Your task to perform on an android device: Go to Wikipedia Image 0: 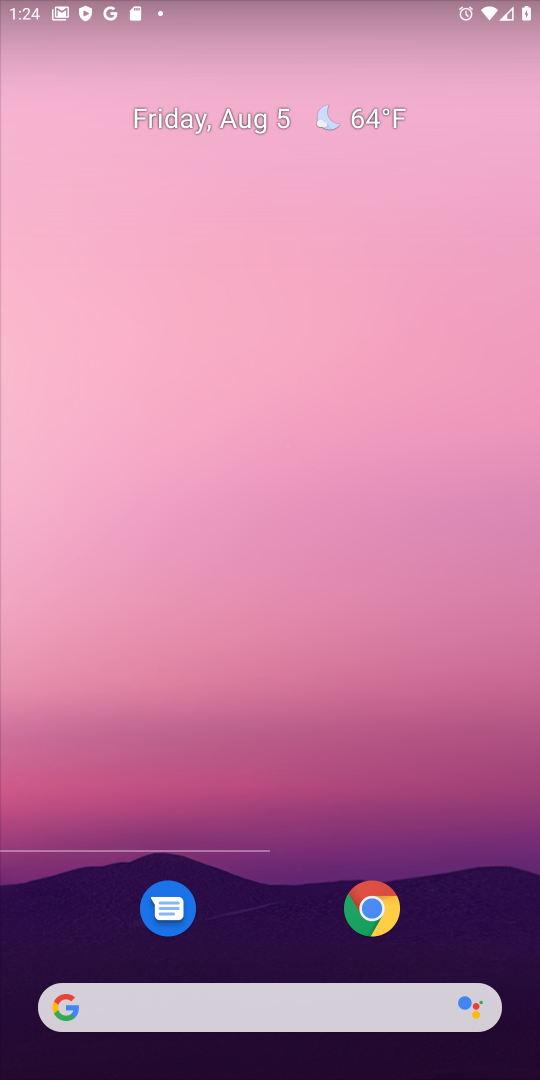
Step 0: press home button
Your task to perform on an android device: Go to Wikipedia Image 1: 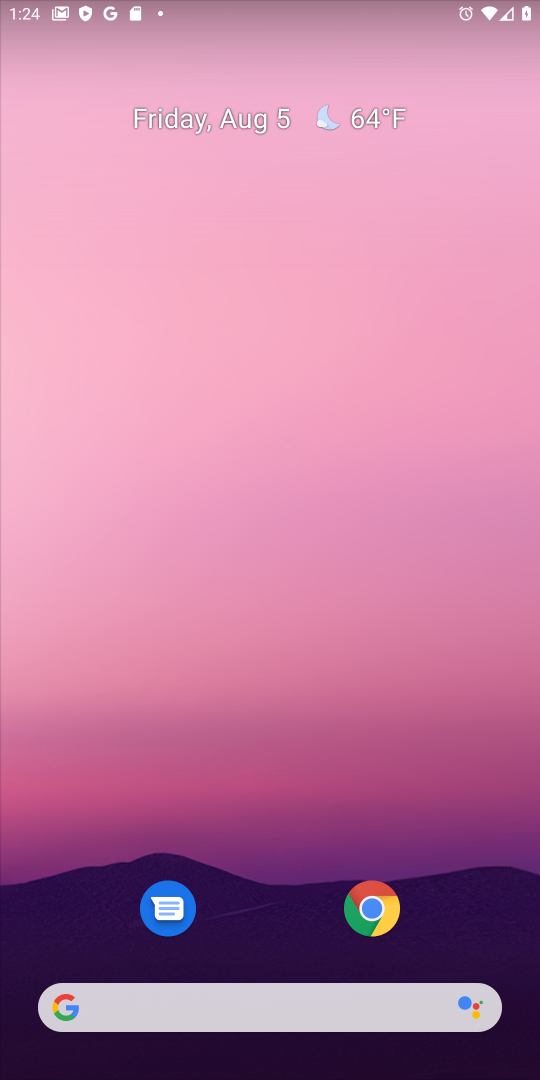
Step 1: drag from (235, 941) to (13, 64)
Your task to perform on an android device: Go to Wikipedia Image 2: 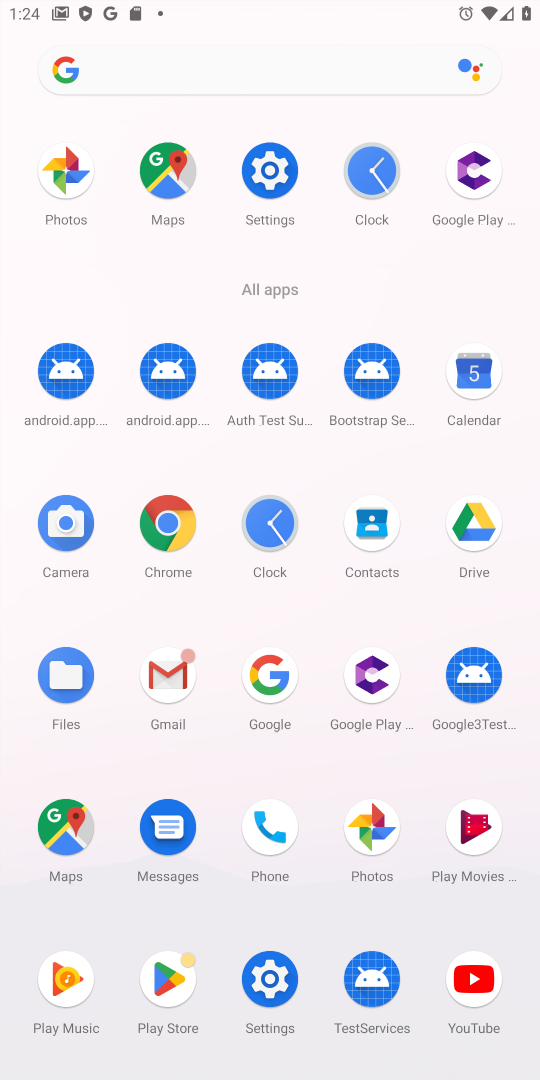
Step 2: click (179, 524)
Your task to perform on an android device: Go to Wikipedia Image 3: 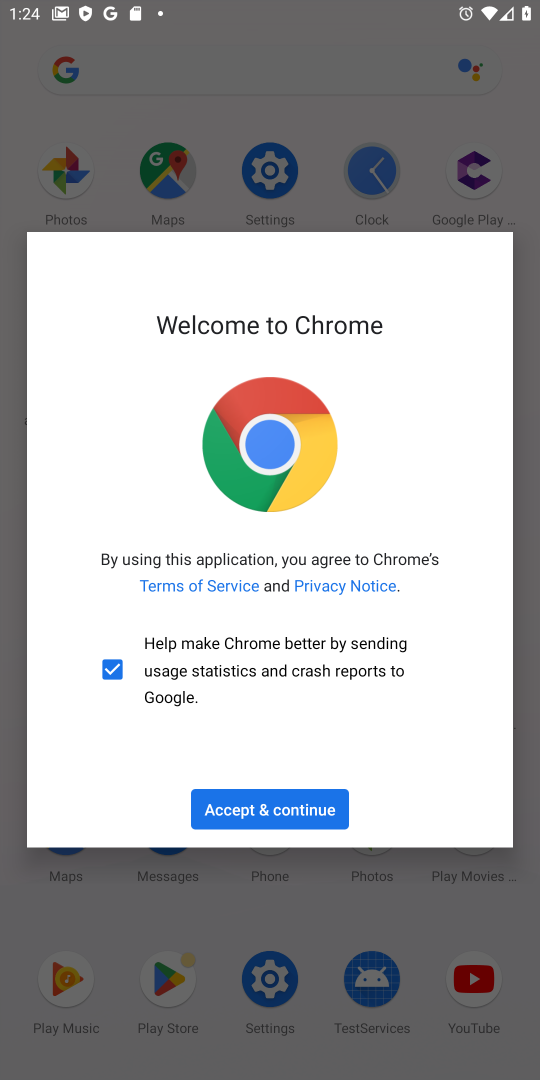
Step 3: click (267, 814)
Your task to perform on an android device: Go to Wikipedia Image 4: 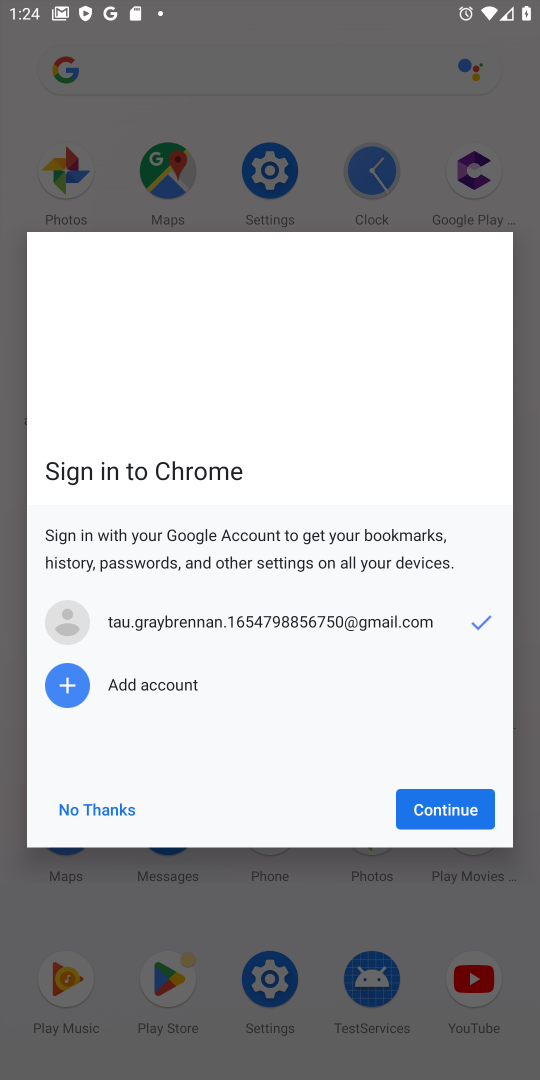
Step 4: click (436, 807)
Your task to perform on an android device: Go to Wikipedia Image 5: 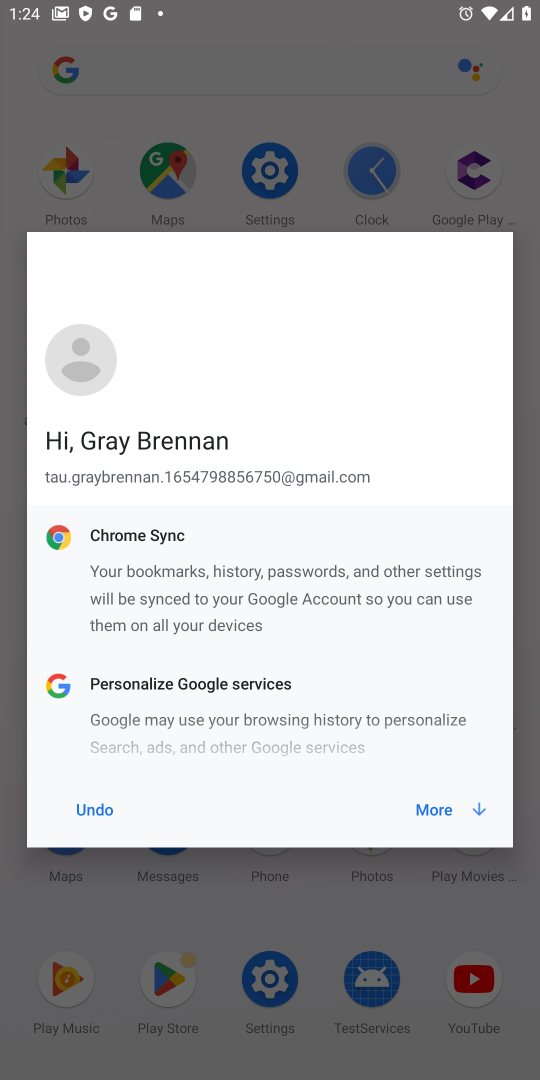
Step 5: click (436, 807)
Your task to perform on an android device: Go to Wikipedia Image 6: 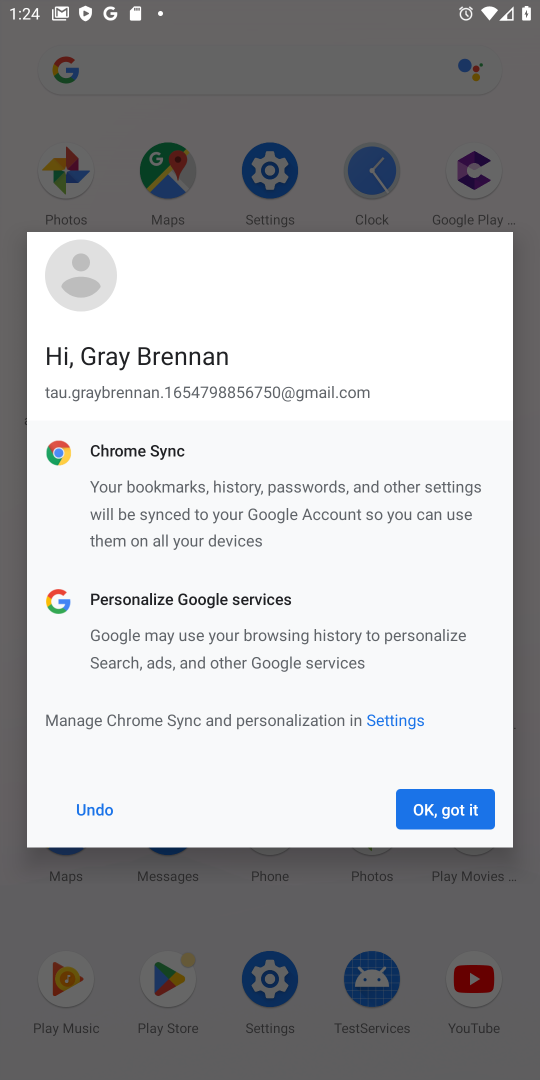
Step 6: click (436, 807)
Your task to perform on an android device: Go to Wikipedia Image 7: 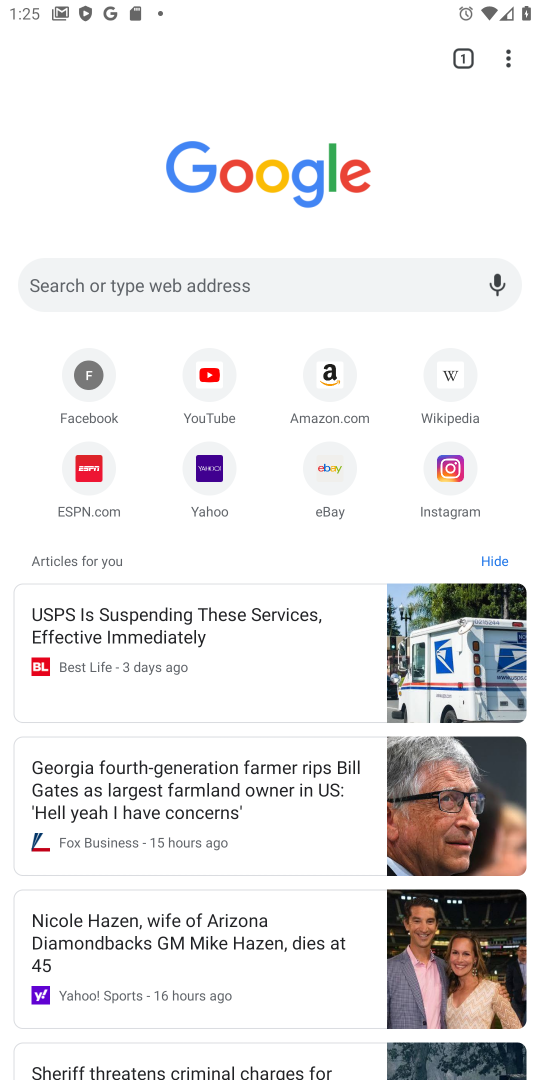
Step 7: click (123, 278)
Your task to perform on an android device: Go to Wikipedia Image 8: 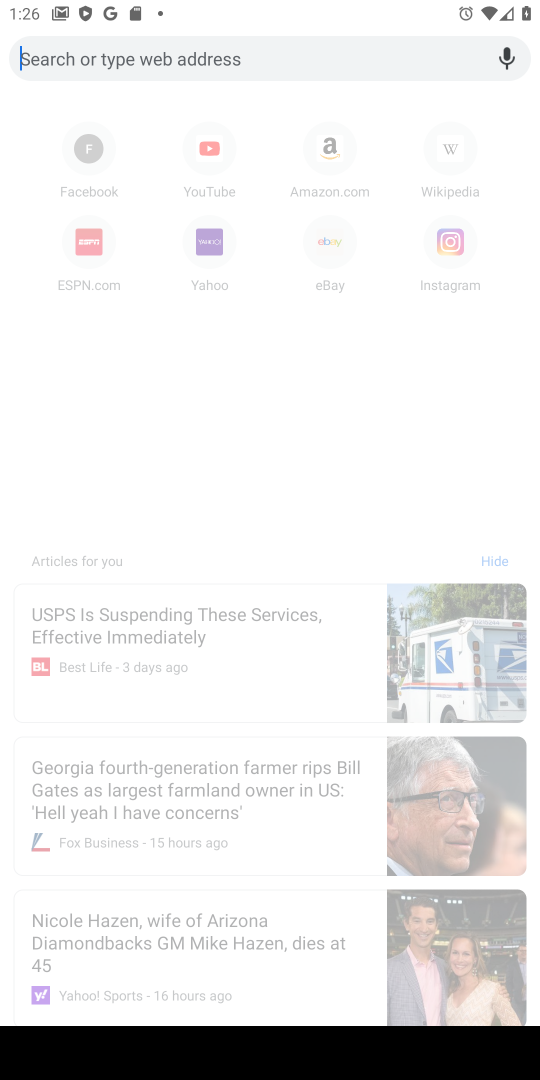
Step 8: type "Wikipedia"
Your task to perform on an android device: Go to Wikipedia Image 9: 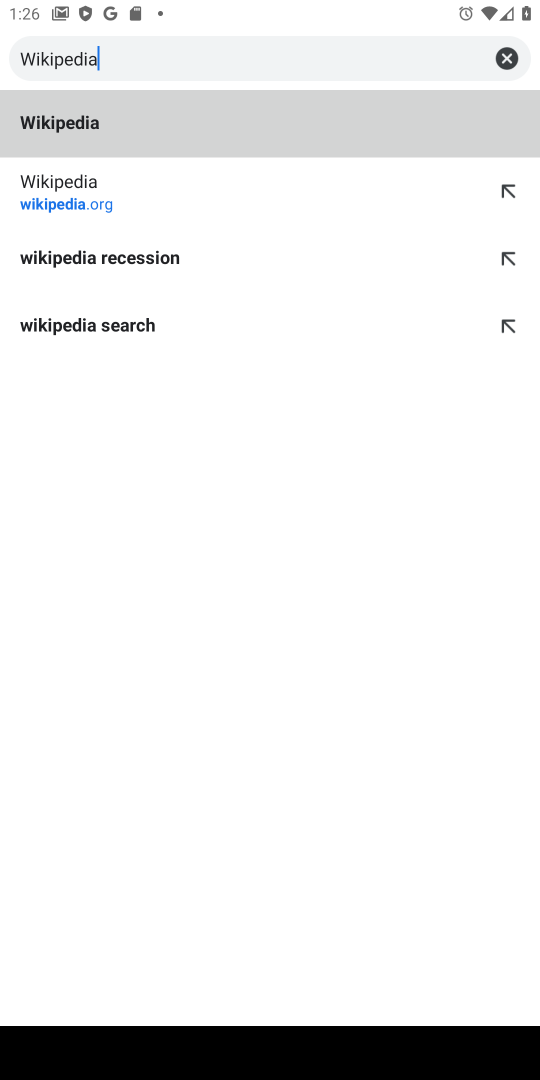
Step 9: click (87, 206)
Your task to perform on an android device: Go to Wikipedia Image 10: 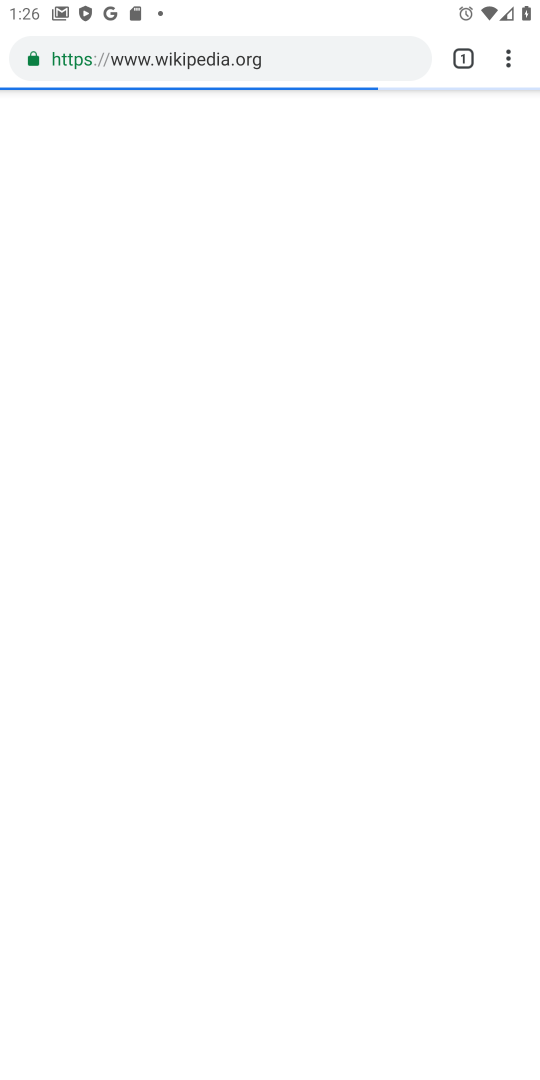
Step 10: task complete